Your task to perform on an android device: change alarm snooze length Image 0: 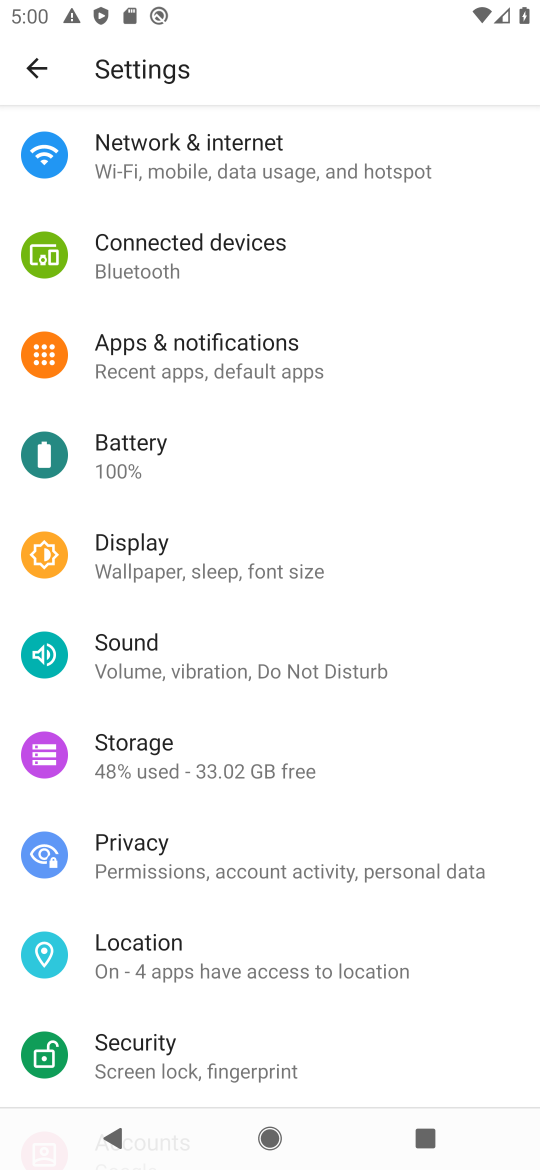
Step 0: press home button
Your task to perform on an android device: change alarm snooze length Image 1: 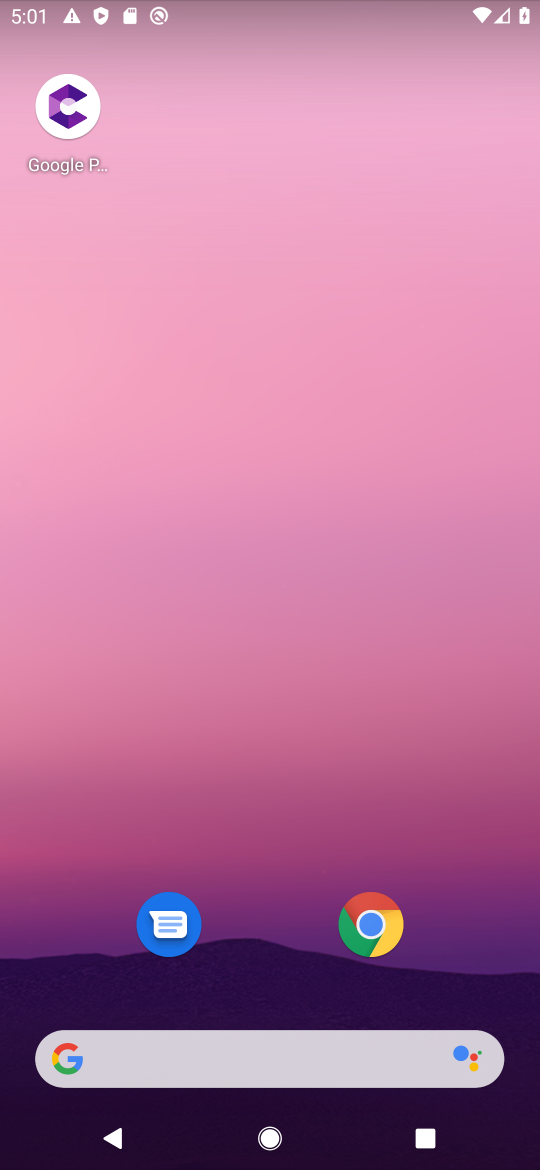
Step 1: drag from (349, 812) to (415, 220)
Your task to perform on an android device: change alarm snooze length Image 2: 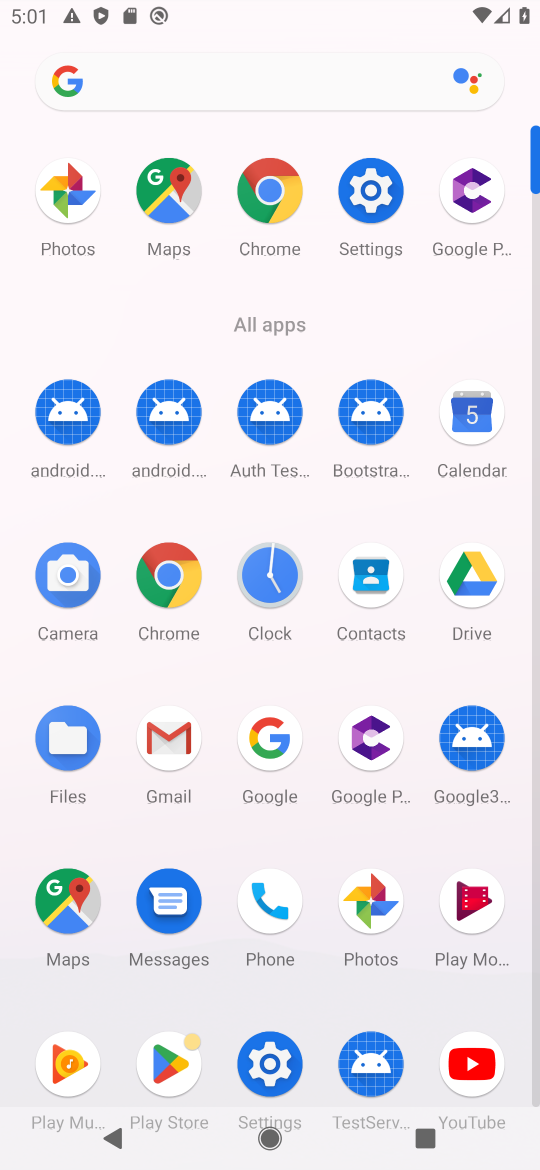
Step 2: click (293, 586)
Your task to perform on an android device: change alarm snooze length Image 3: 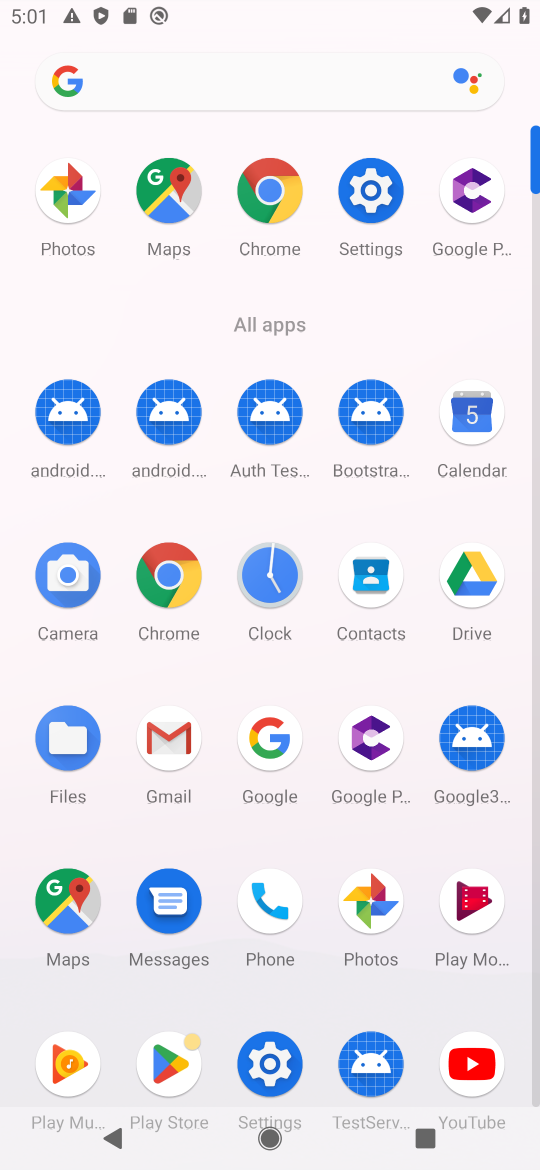
Step 3: click (293, 586)
Your task to perform on an android device: change alarm snooze length Image 4: 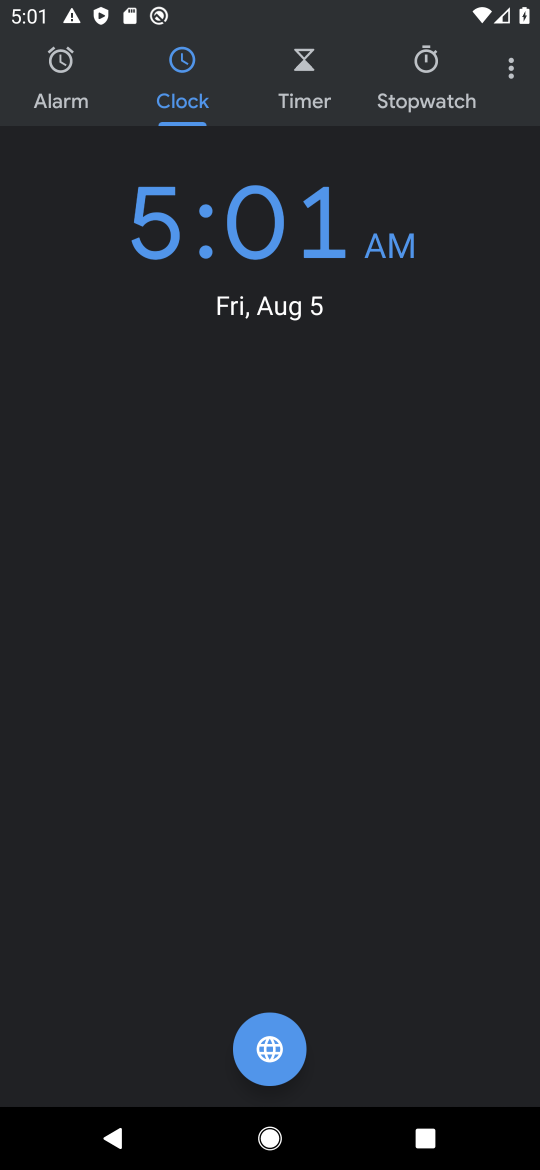
Step 4: click (508, 80)
Your task to perform on an android device: change alarm snooze length Image 5: 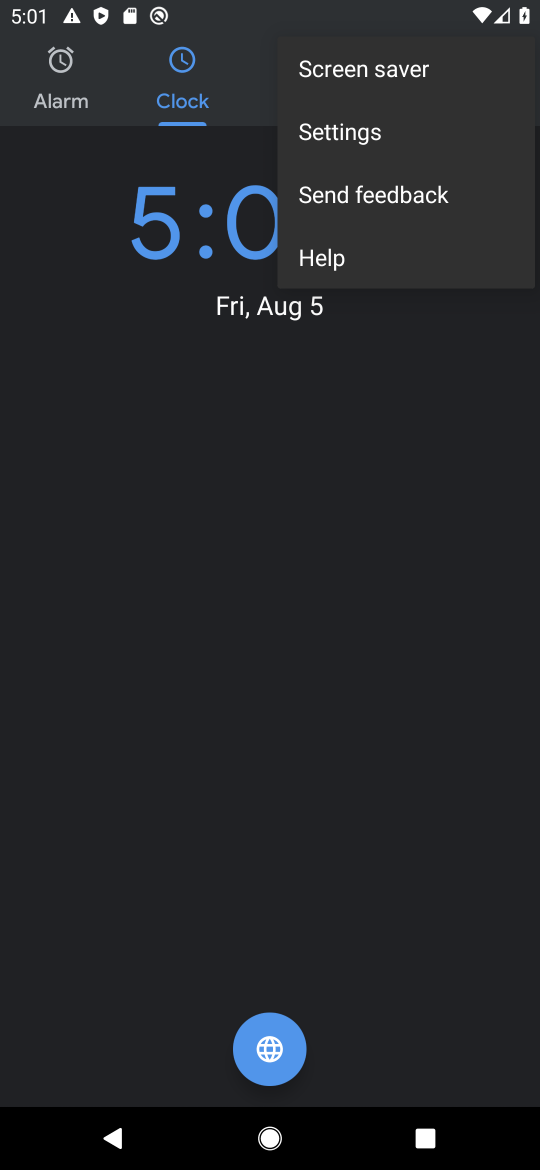
Step 5: click (428, 146)
Your task to perform on an android device: change alarm snooze length Image 6: 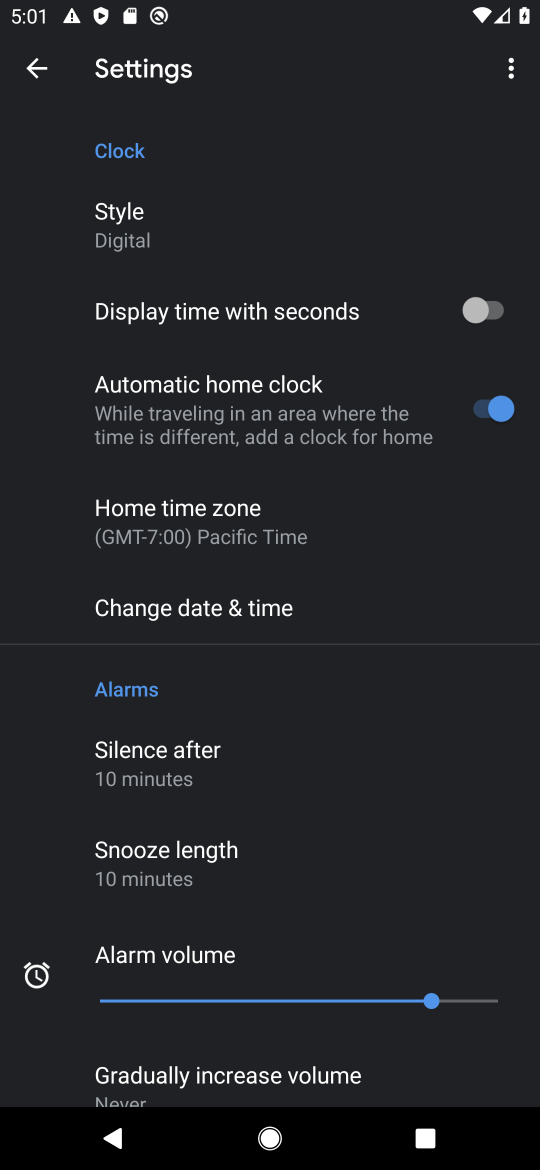
Step 6: click (194, 845)
Your task to perform on an android device: change alarm snooze length Image 7: 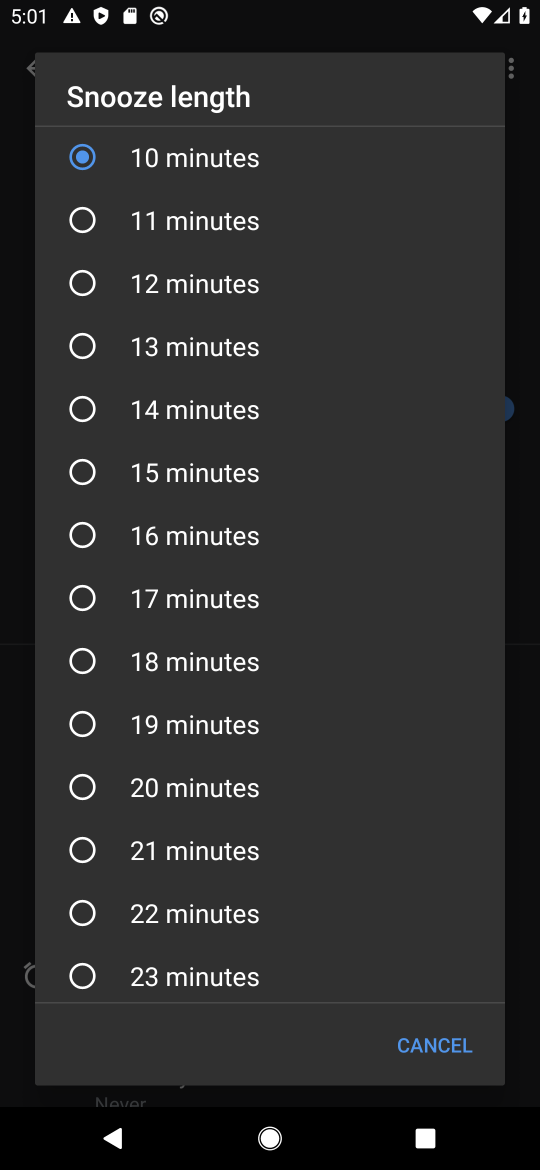
Step 7: click (202, 934)
Your task to perform on an android device: change alarm snooze length Image 8: 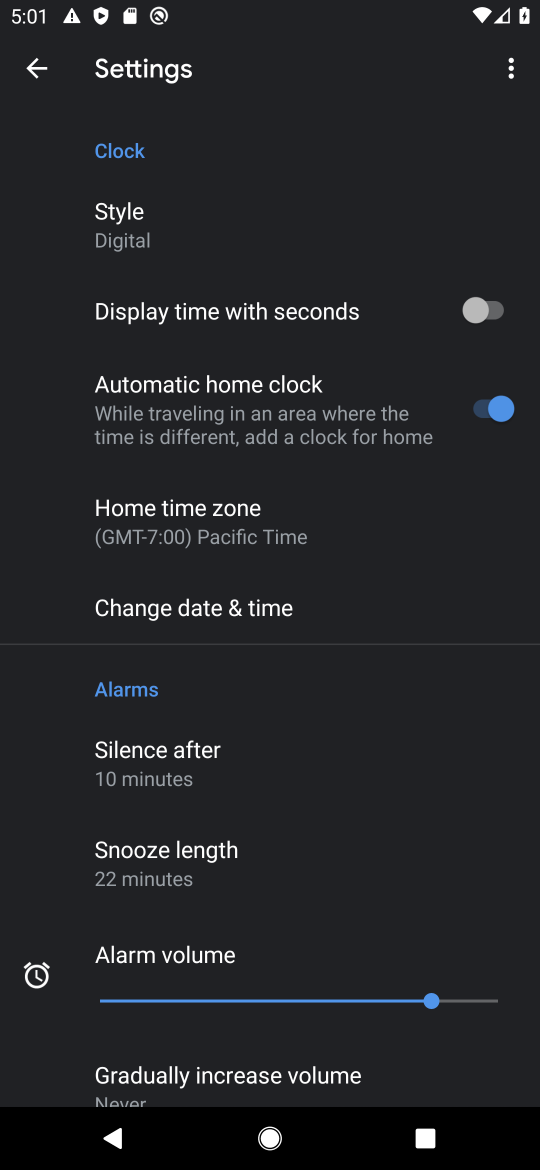
Step 8: task complete